Your task to perform on an android device: Show me productivity apps on the Play Store Image 0: 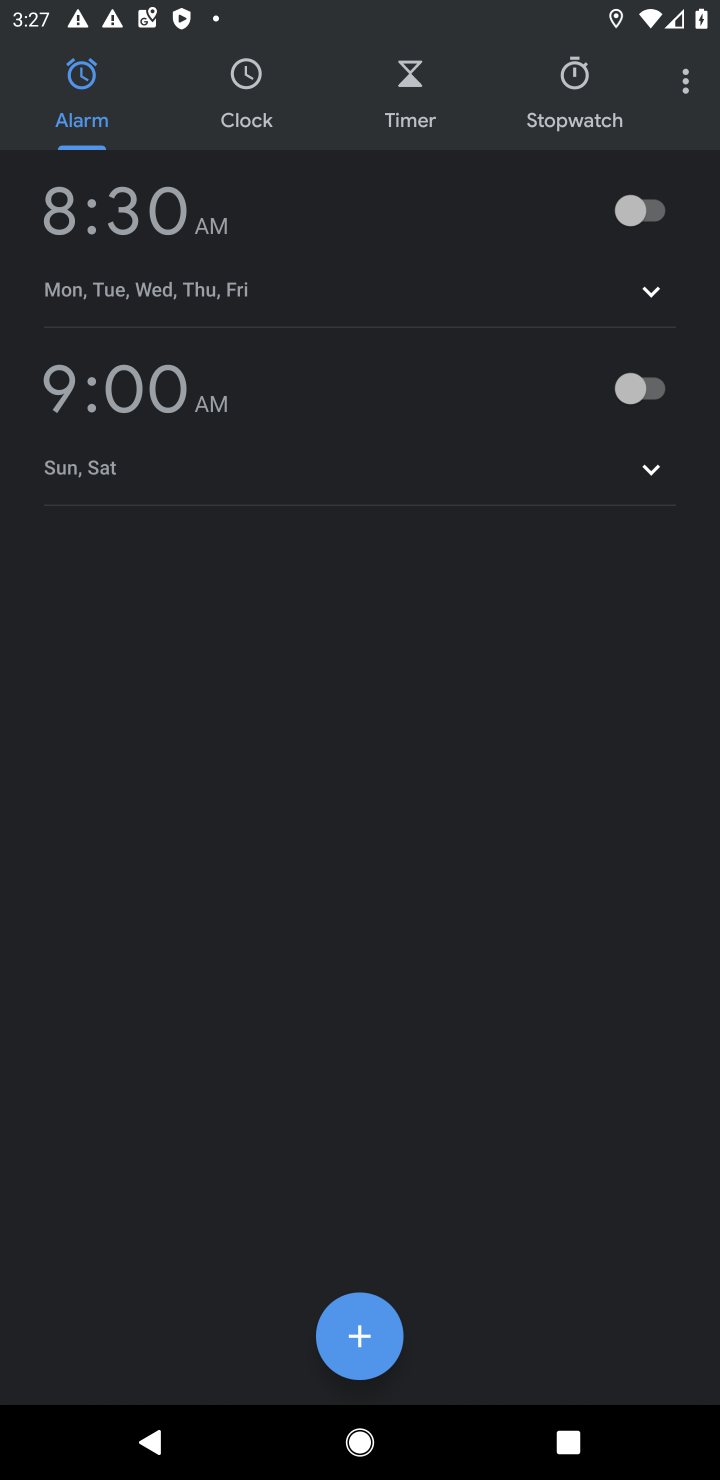
Step 0: press home button
Your task to perform on an android device: Show me productivity apps on the Play Store Image 1: 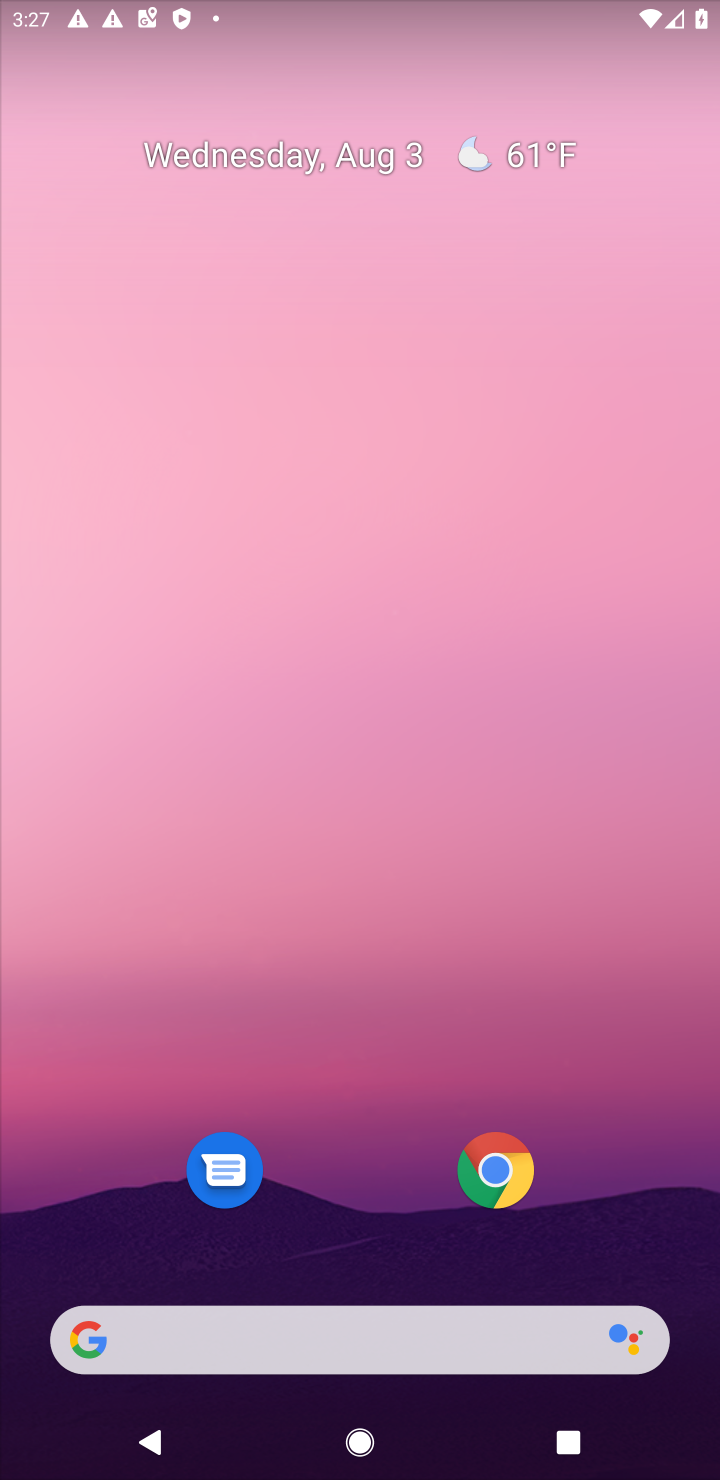
Step 1: drag from (693, 1246) to (463, 200)
Your task to perform on an android device: Show me productivity apps on the Play Store Image 2: 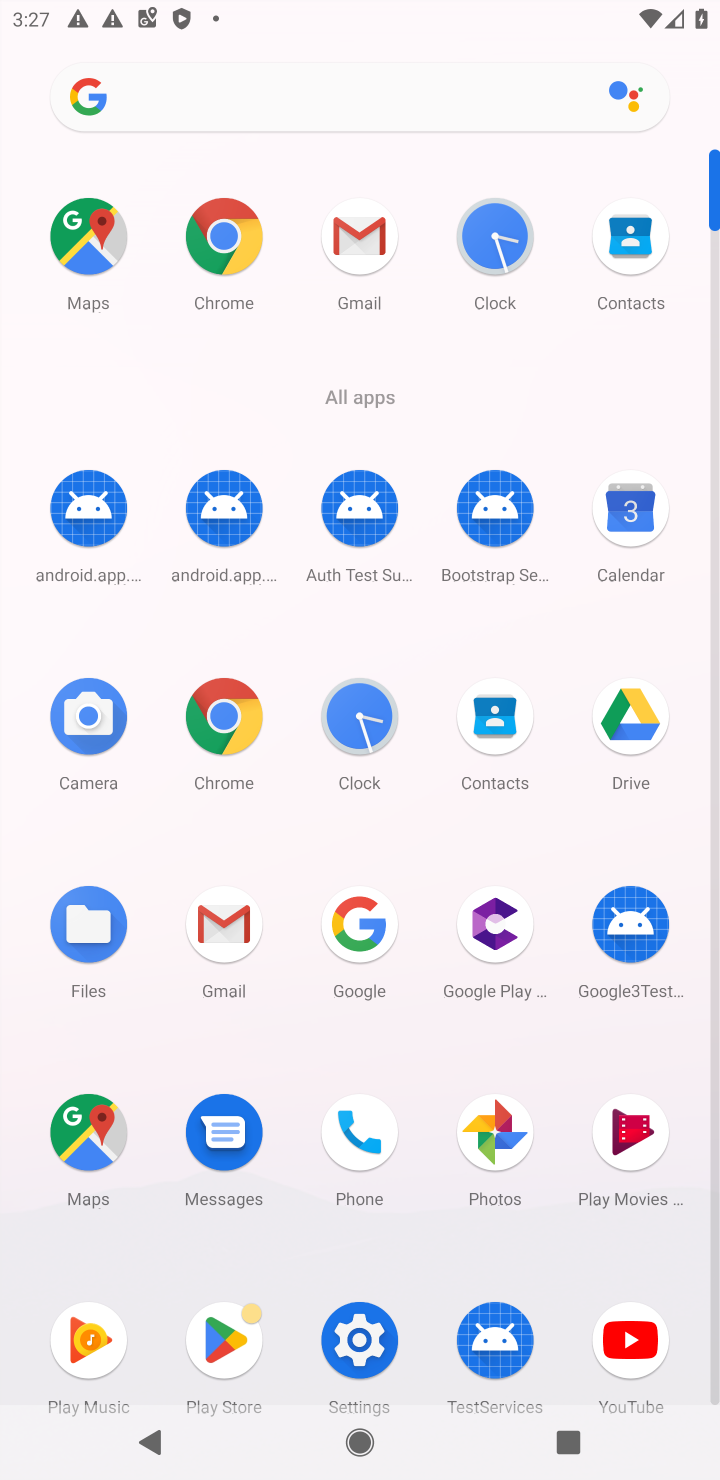
Step 2: click (223, 1340)
Your task to perform on an android device: Show me productivity apps on the Play Store Image 3: 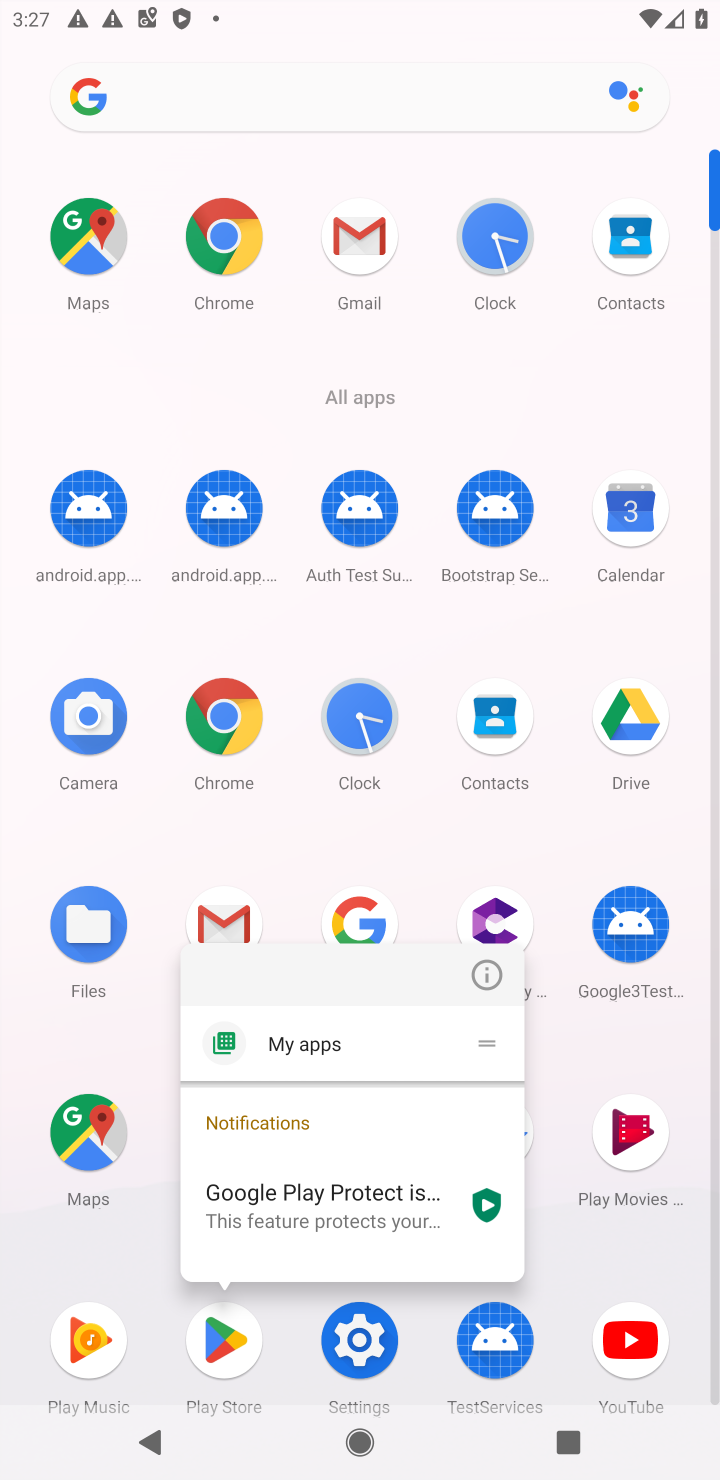
Step 3: click (222, 1333)
Your task to perform on an android device: Show me productivity apps on the Play Store Image 4: 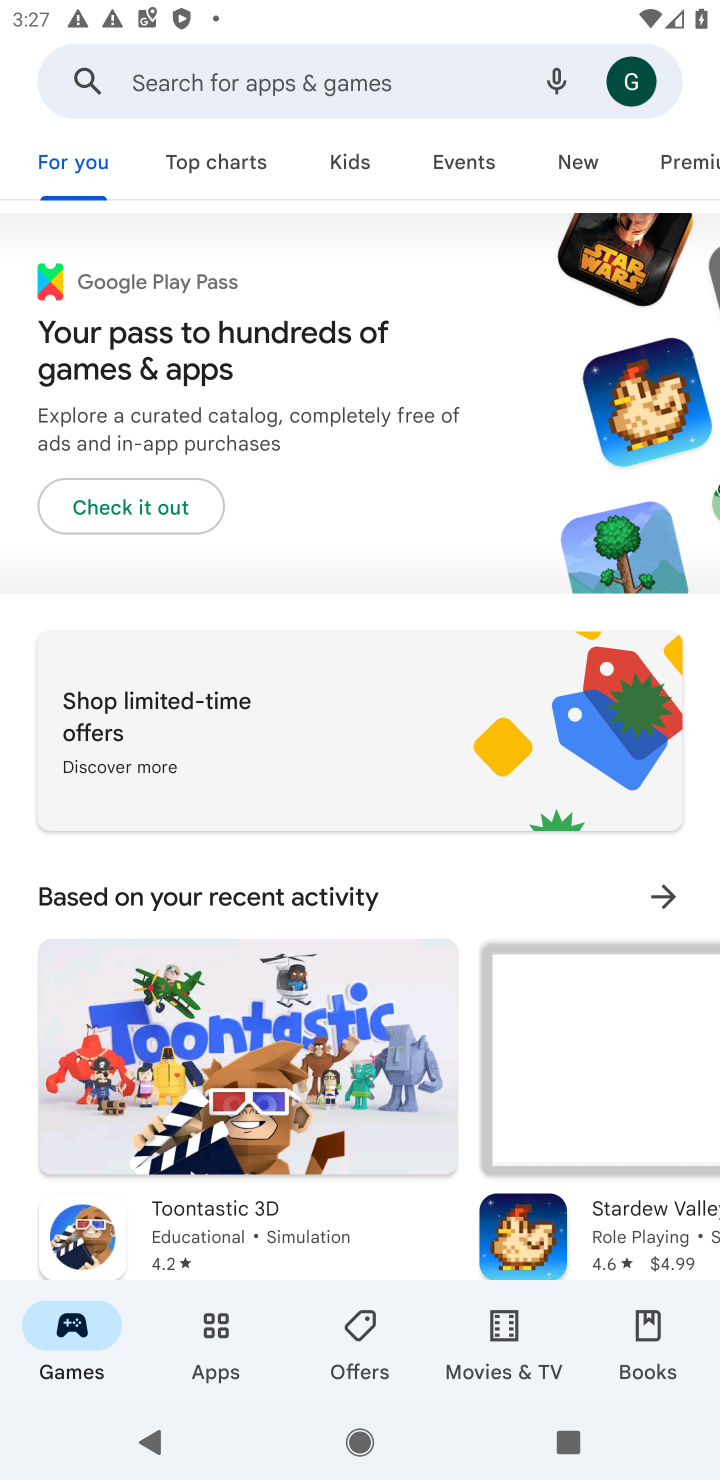
Step 4: click (224, 1339)
Your task to perform on an android device: Show me productivity apps on the Play Store Image 5: 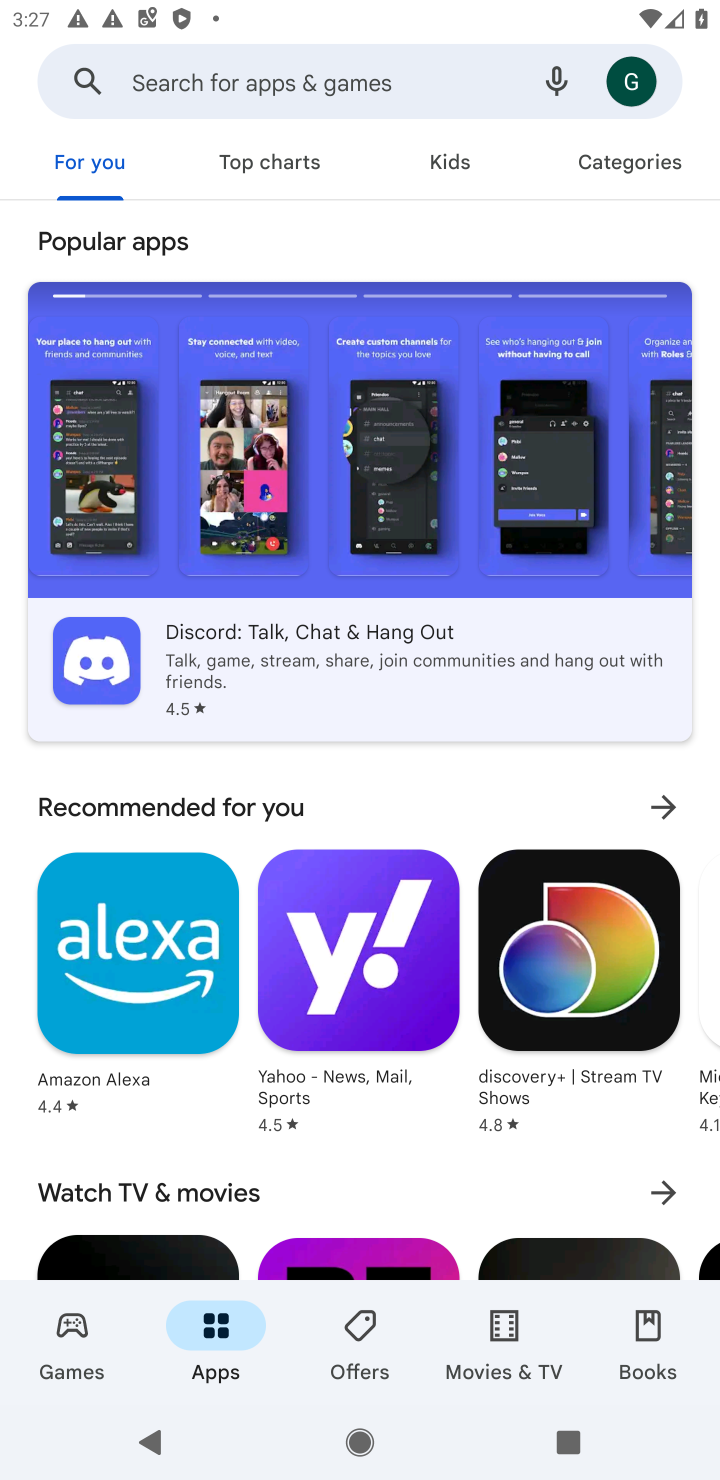
Step 5: click (628, 172)
Your task to perform on an android device: Show me productivity apps on the Play Store Image 6: 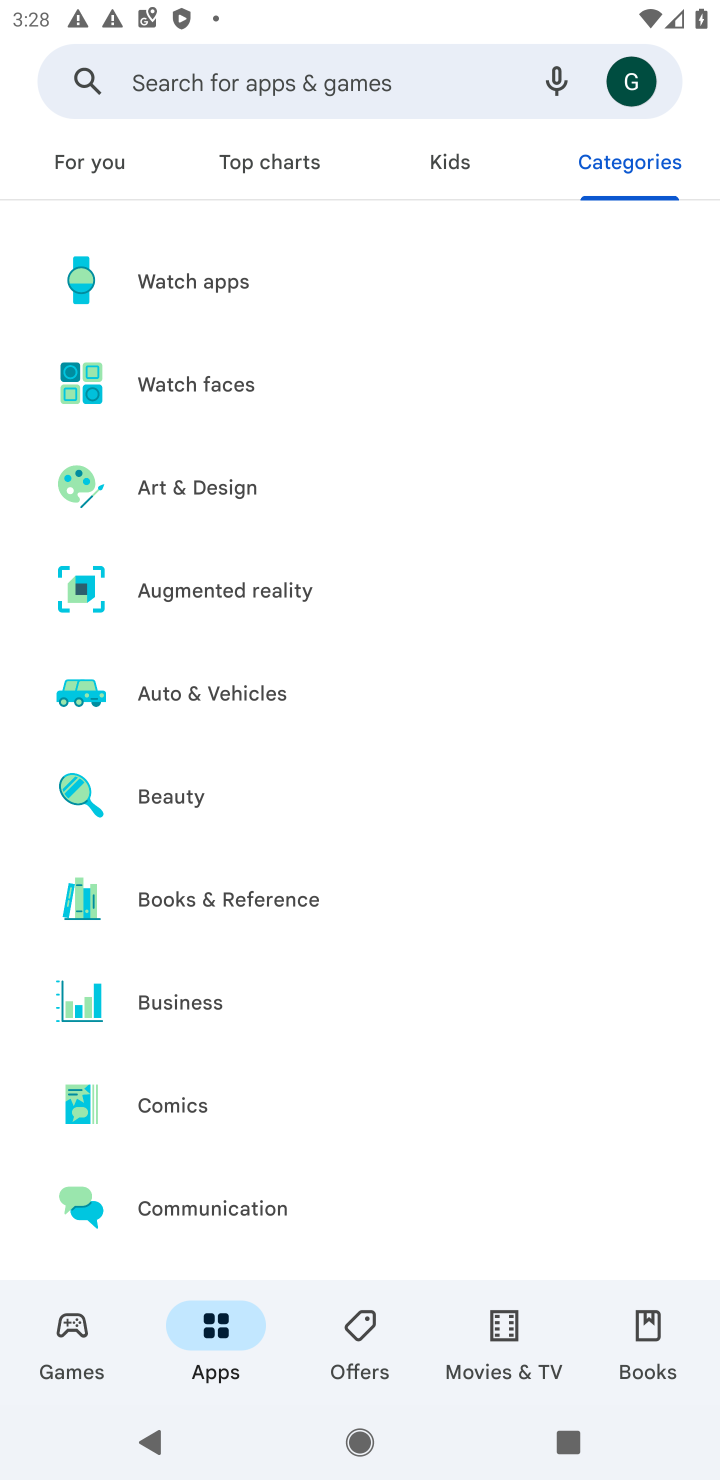
Step 6: drag from (268, 1178) to (172, 355)
Your task to perform on an android device: Show me productivity apps on the Play Store Image 7: 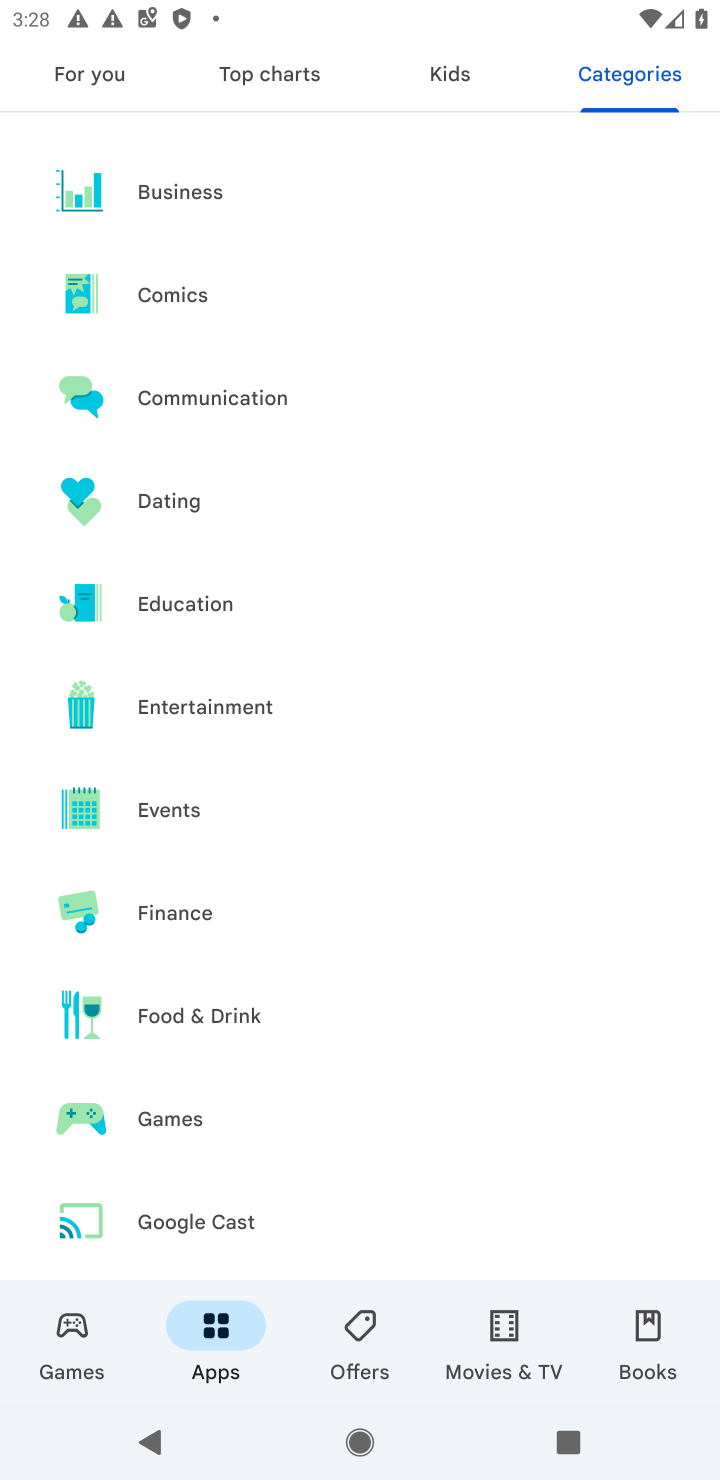
Step 7: drag from (331, 1146) to (209, 208)
Your task to perform on an android device: Show me productivity apps on the Play Store Image 8: 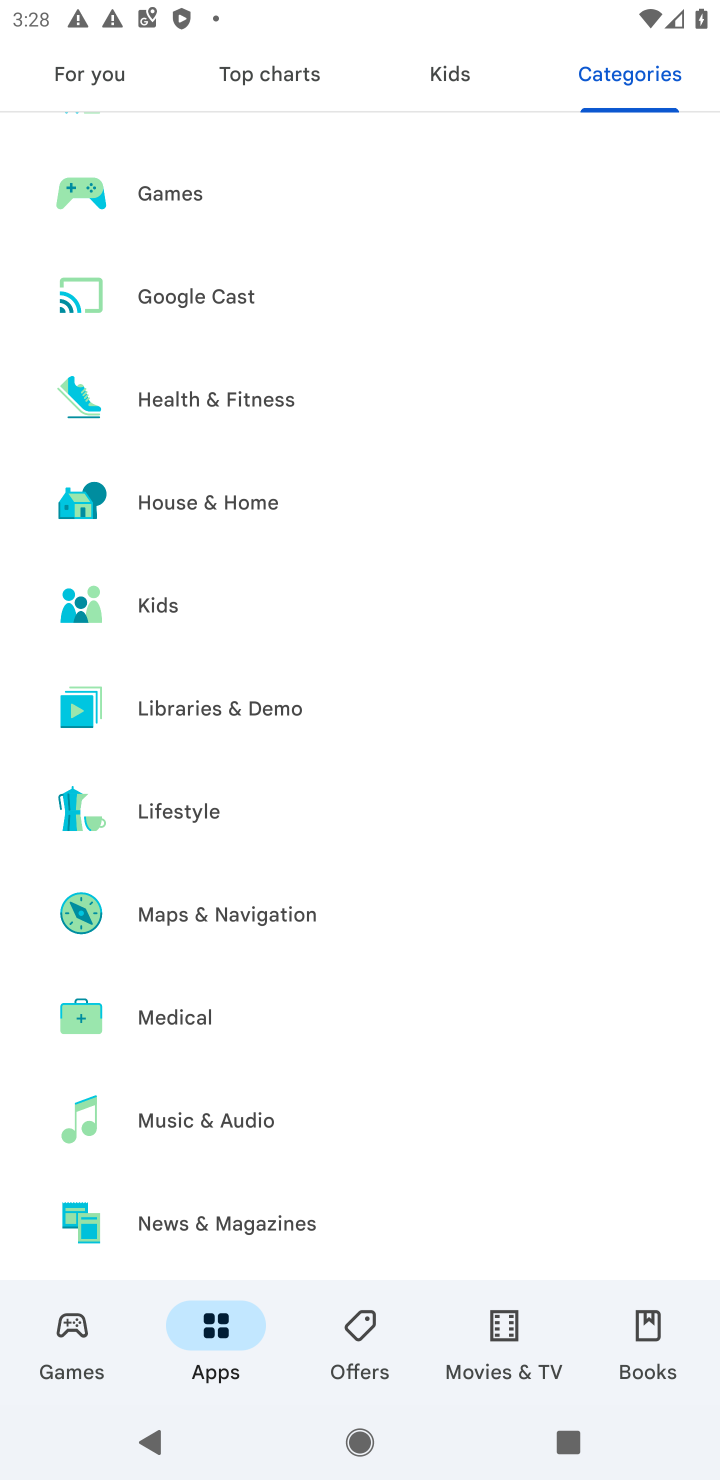
Step 8: drag from (329, 1141) to (263, 414)
Your task to perform on an android device: Show me productivity apps on the Play Store Image 9: 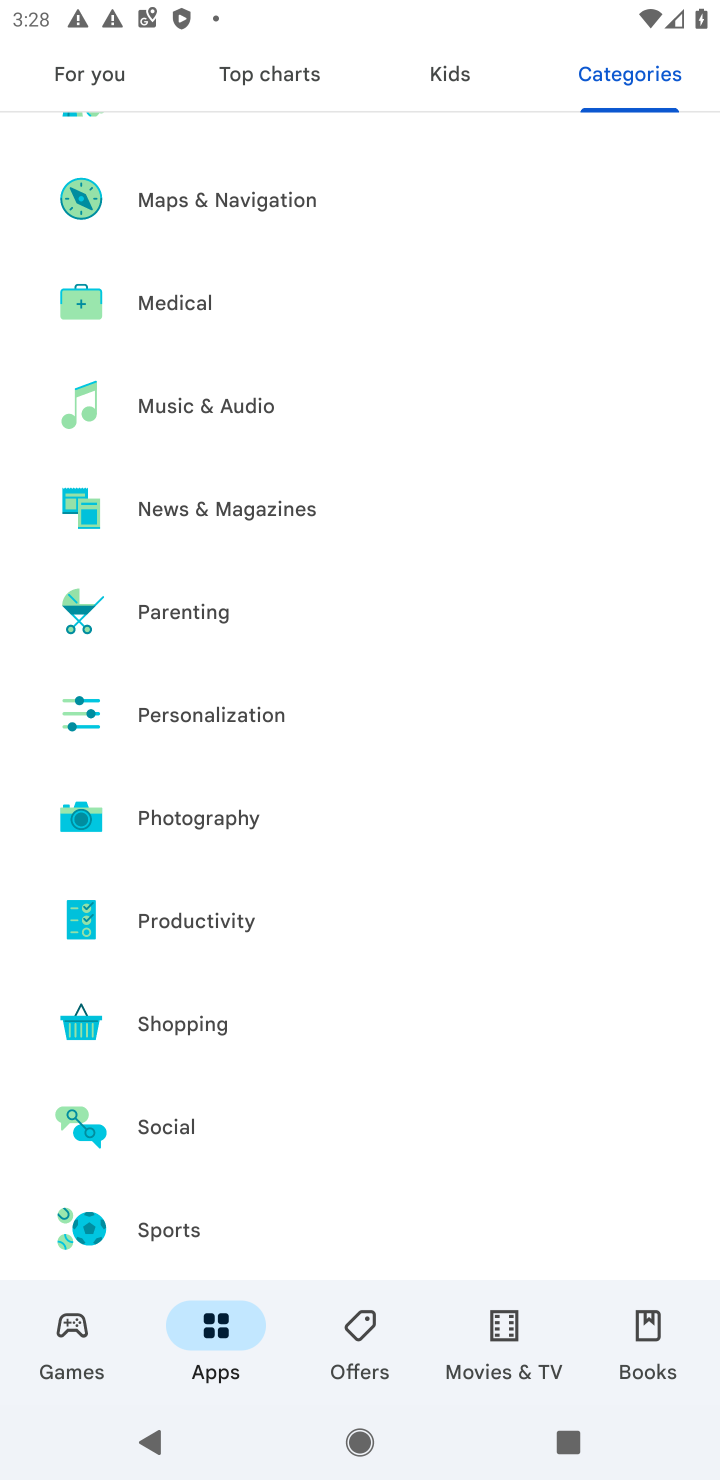
Step 9: drag from (286, 1160) to (172, 229)
Your task to perform on an android device: Show me productivity apps on the Play Store Image 10: 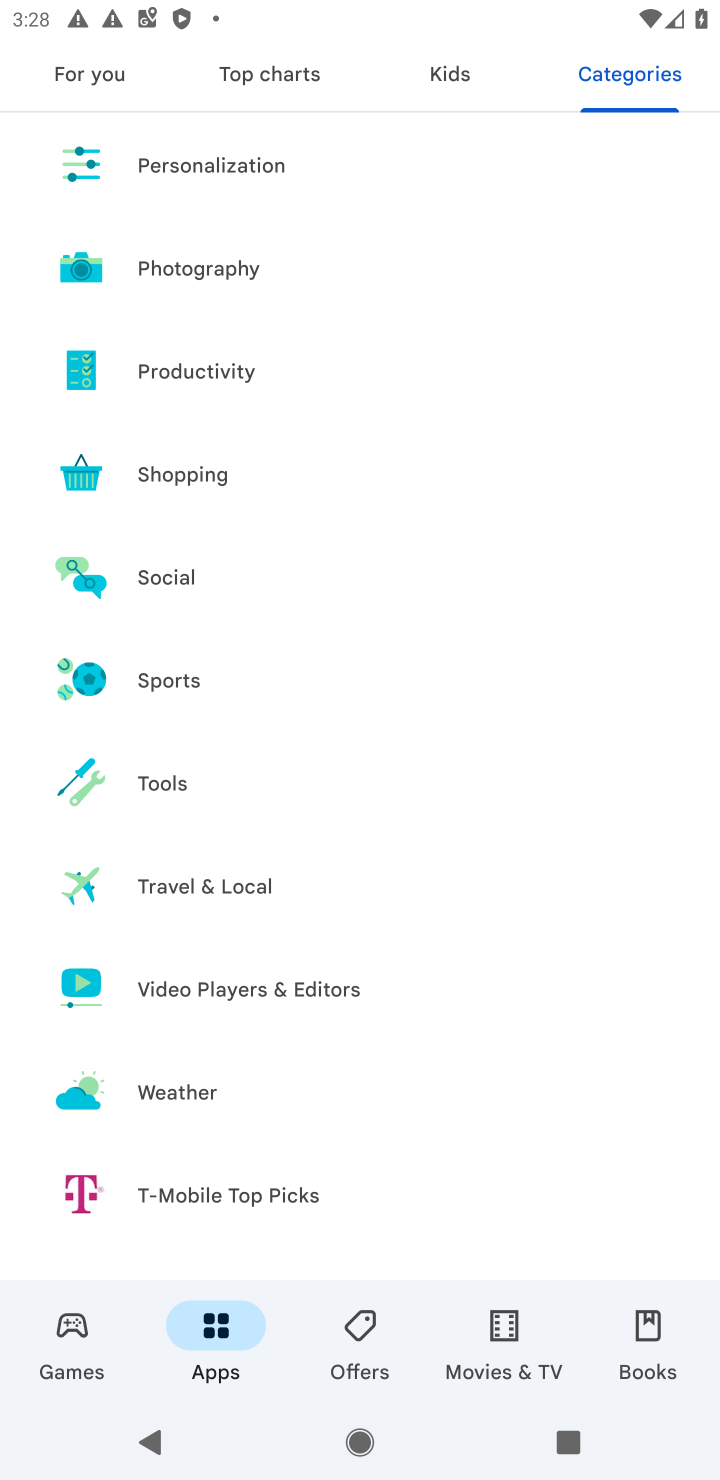
Step 10: drag from (241, 1136) to (253, 145)
Your task to perform on an android device: Show me productivity apps on the Play Store Image 11: 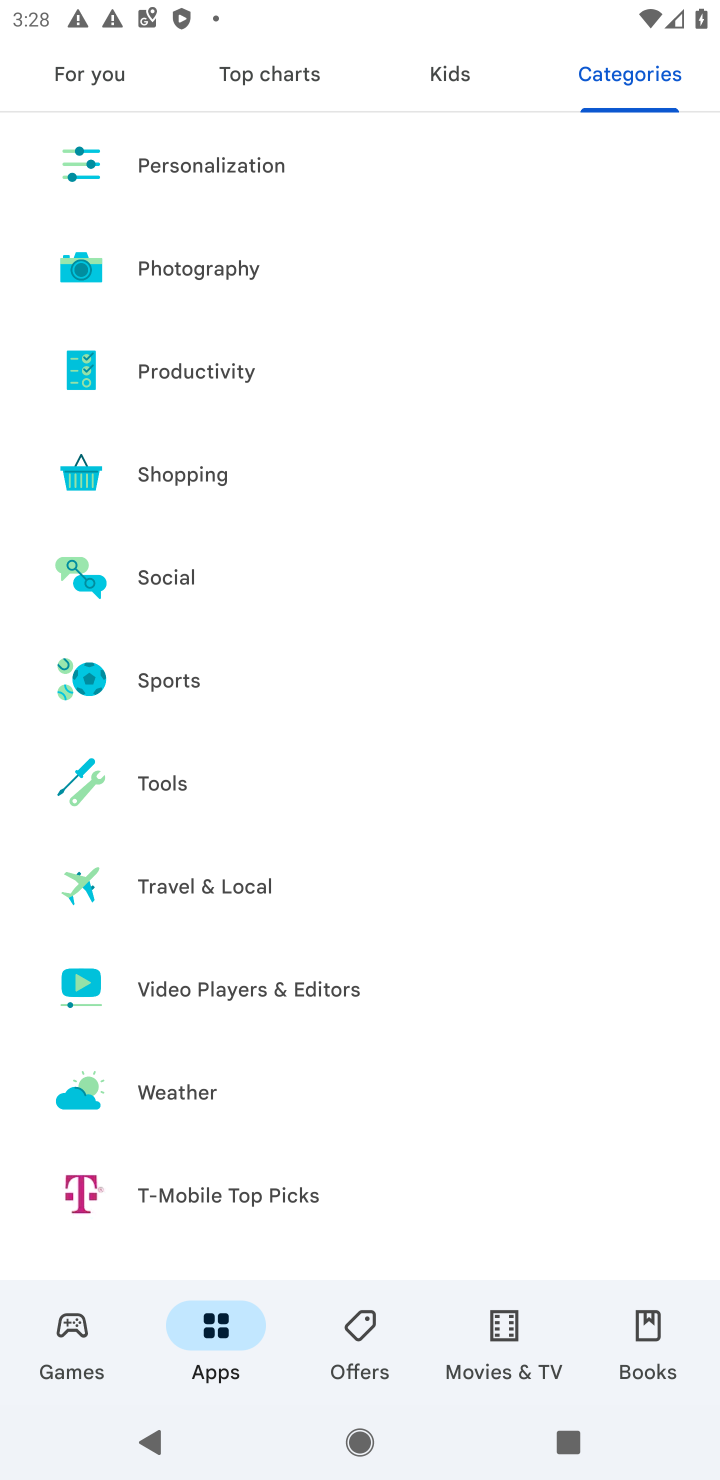
Step 11: drag from (371, 1112) to (335, 279)
Your task to perform on an android device: Show me productivity apps on the Play Store Image 12: 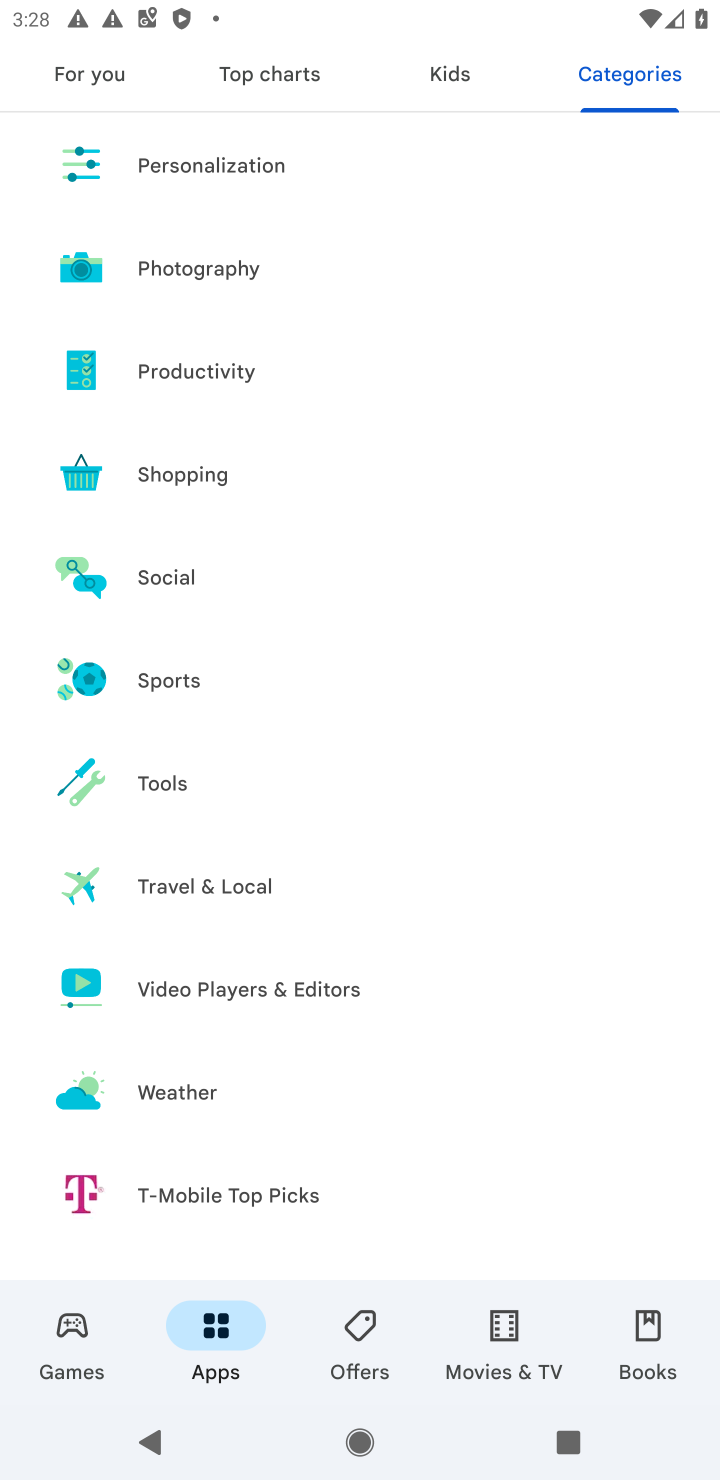
Step 12: click (295, 355)
Your task to perform on an android device: Show me productivity apps on the Play Store Image 13: 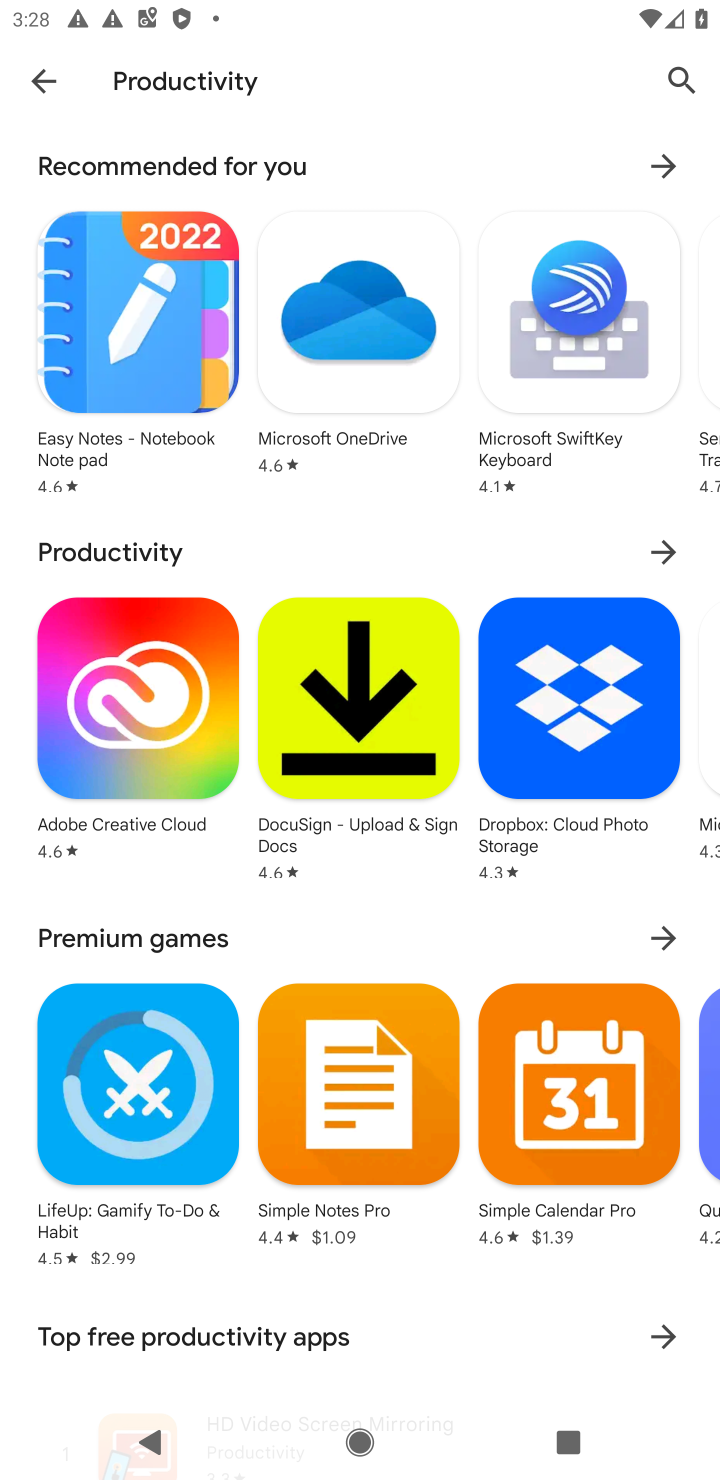
Step 13: task complete